Your task to perform on an android device: Clear the shopping cart on newegg. Add sony triple a to the cart on newegg, then select checkout. Image 0: 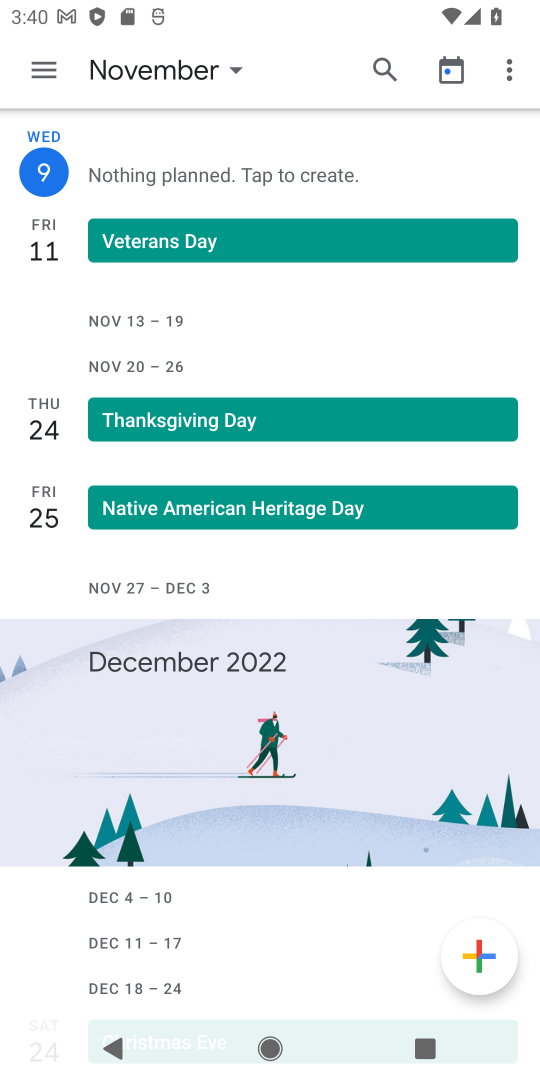
Step 0: press home button
Your task to perform on an android device: Clear the shopping cart on newegg. Add sony triple a to the cart on newegg, then select checkout. Image 1: 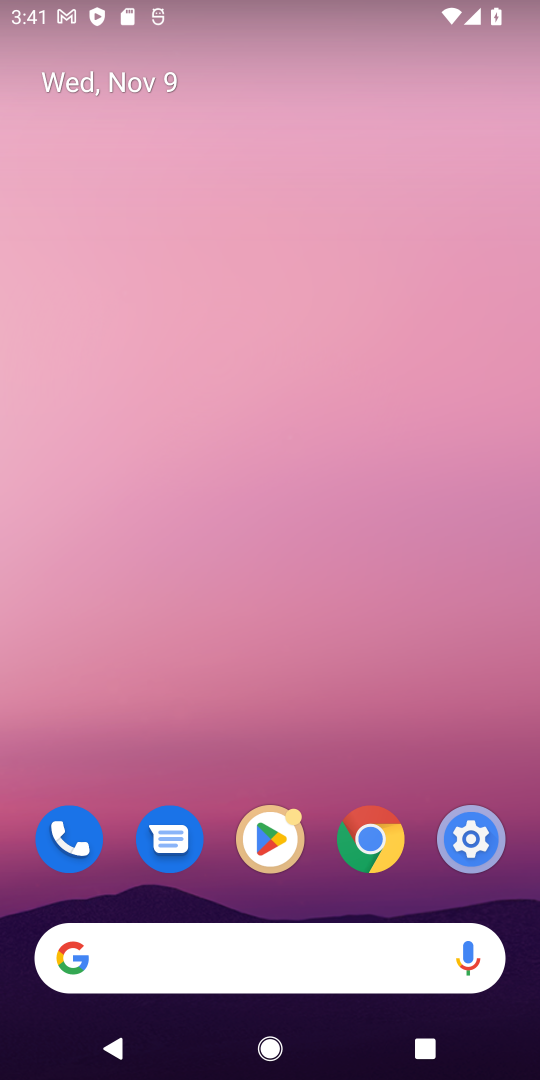
Step 1: click (278, 987)
Your task to perform on an android device: Clear the shopping cart on newegg. Add sony triple a to the cart on newegg, then select checkout. Image 2: 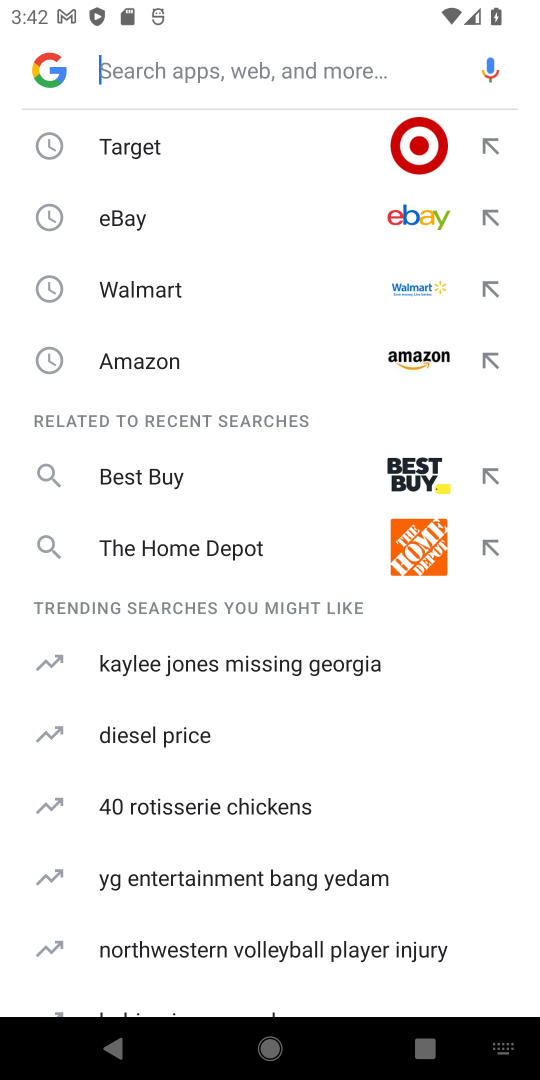
Step 2: type "newegg"
Your task to perform on an android device: Clear the shopping cart on newegg. Add sony triple a to the cart on newegg, then select checkout. Image 3: 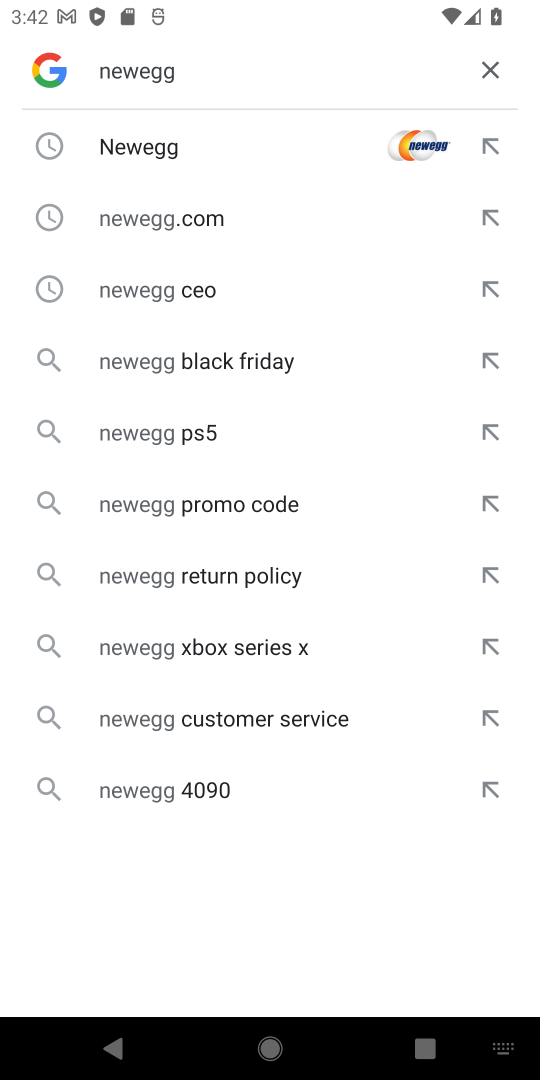
Step 3: click (285, 161)
Your task to perform on an android device: Clear the shopping cart on newegg. Add sony triple a to the cart on newegg, then select checkout. Image 4: 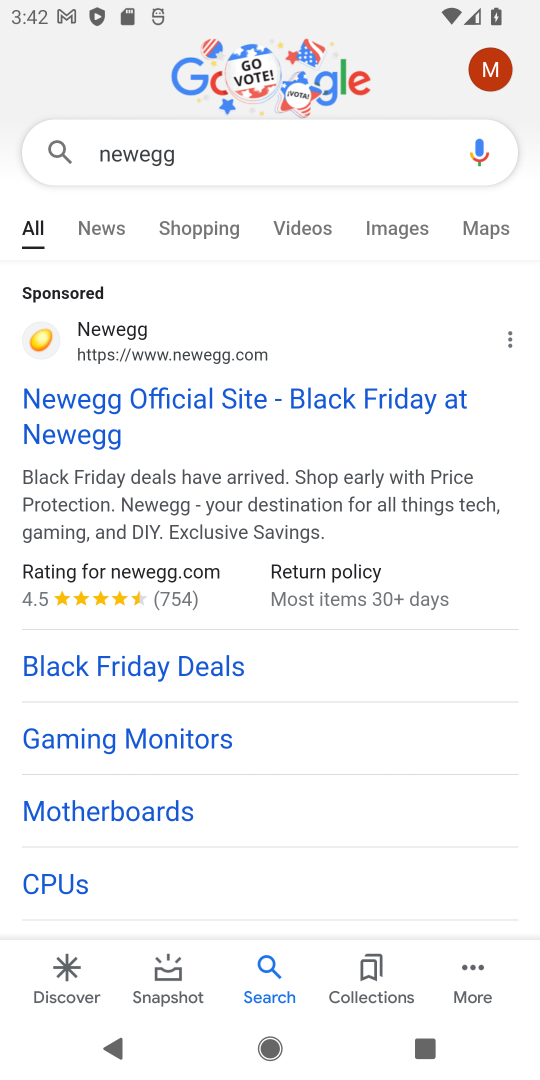
Step 4: click (197, 439)
Your task to perform on an android device: Clear the shopping cart on newegg. Add sony triple a to the cart on newegg, then select checkout. Image 5: 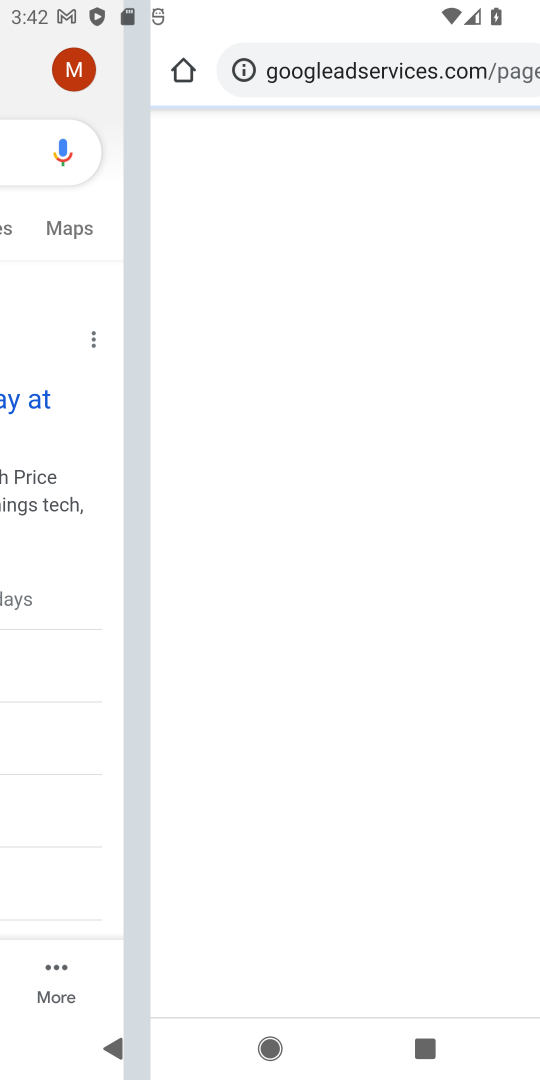
Step 5: task complete